Your task to perform on an android device: turn pop-ups off in chrome Image 0: 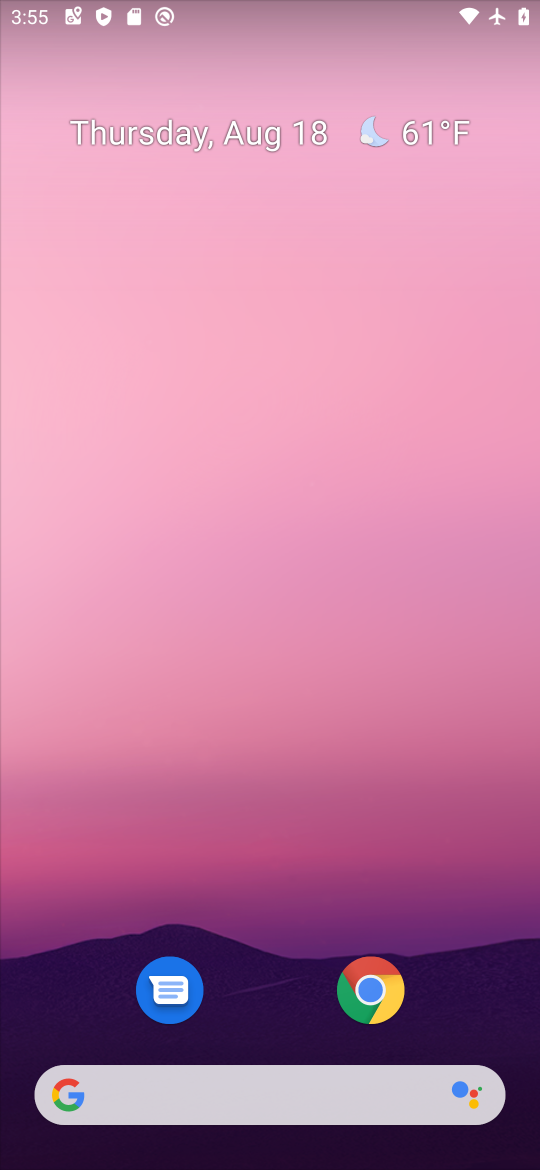
Step 0: drag from (248, 1004) to (268, 78)
Your task to perform on an android device: turn pop-ups off in chrome Image 1: 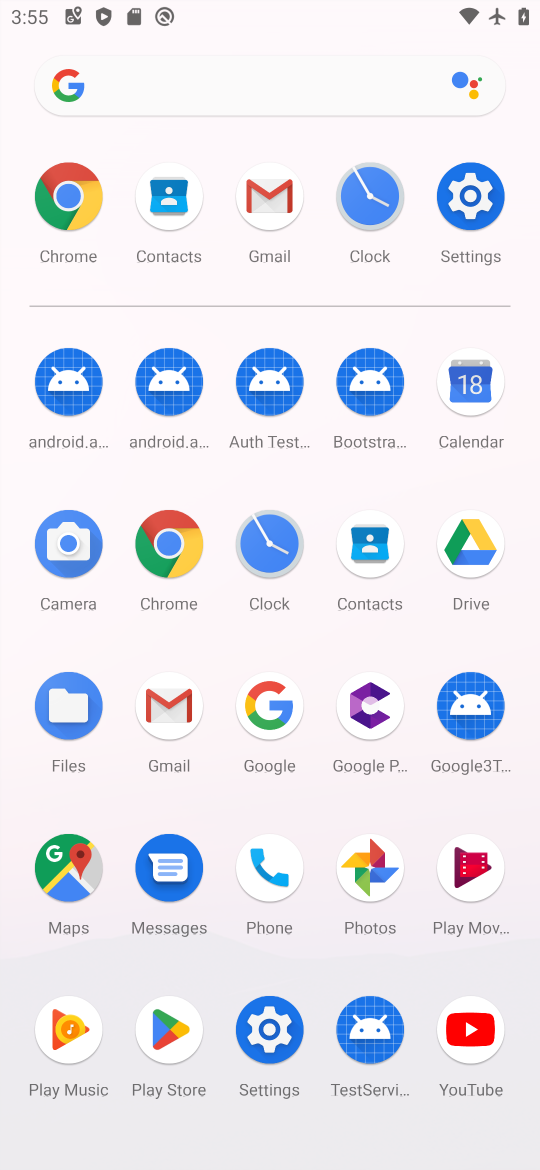
Step 1: click (163, 551)
Your task to perform on an android device: turn pop-ups off in chrome Image 2: 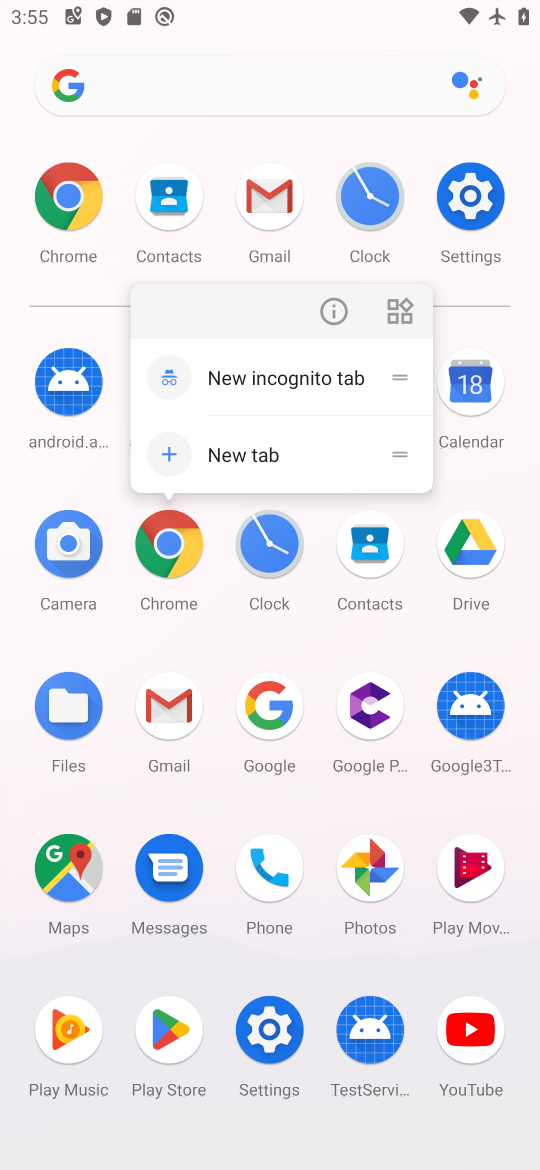
Step 2: click (163, 557)
Your task to perform on an android device: turn pop-ups off in chrome Image 3: 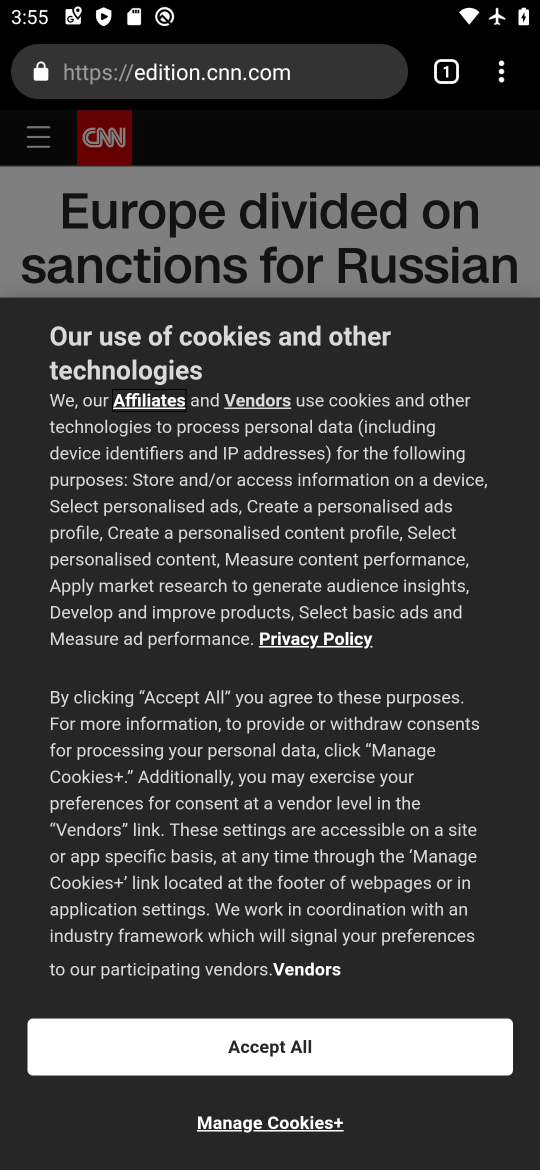
Step 3: drag from (510, 68) to (250, 784)
Your task to perform on an android device: turn pop-ups off in chrome Image 4: 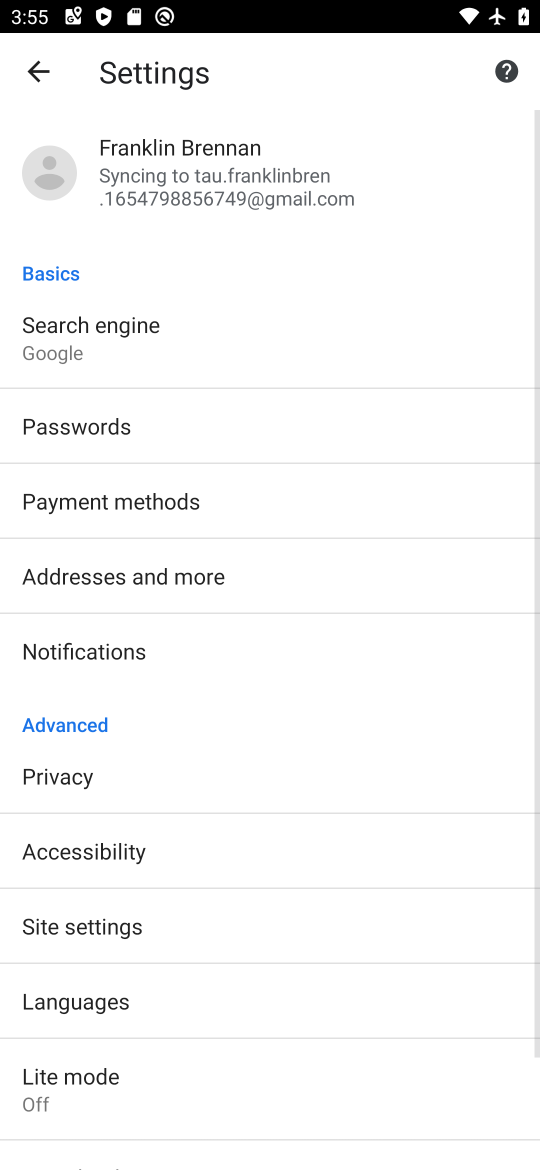
Step 4: drag from (300, 837) to (374, 225)
Your task to perform on an android device: turn pop-ups off in chrome Image 5: 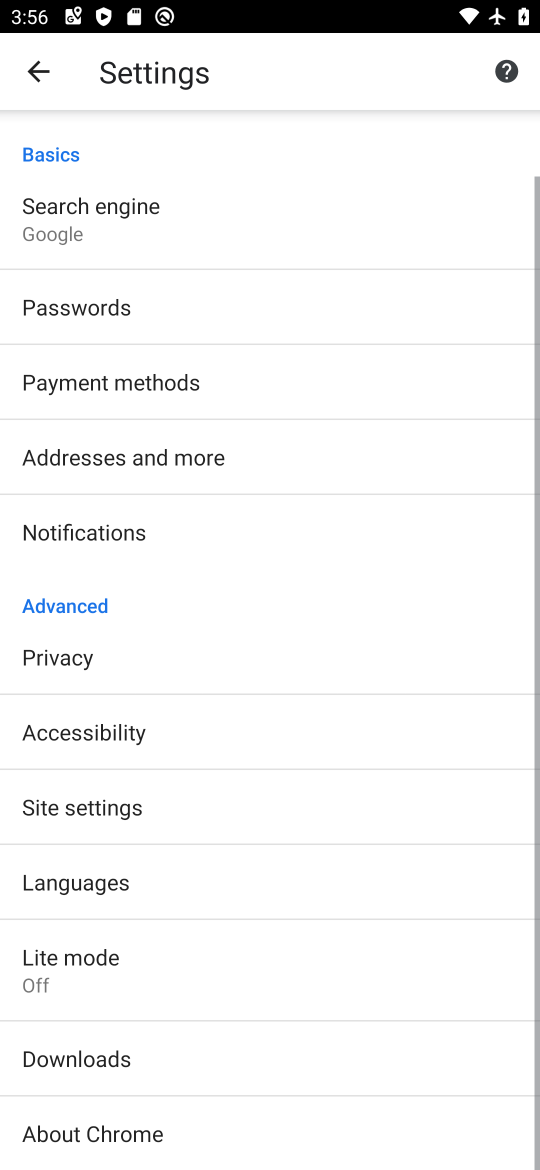
Step 5: click (110, 807)
Your task to perform on an android device: turn pop-ups off in chrome Image 6: 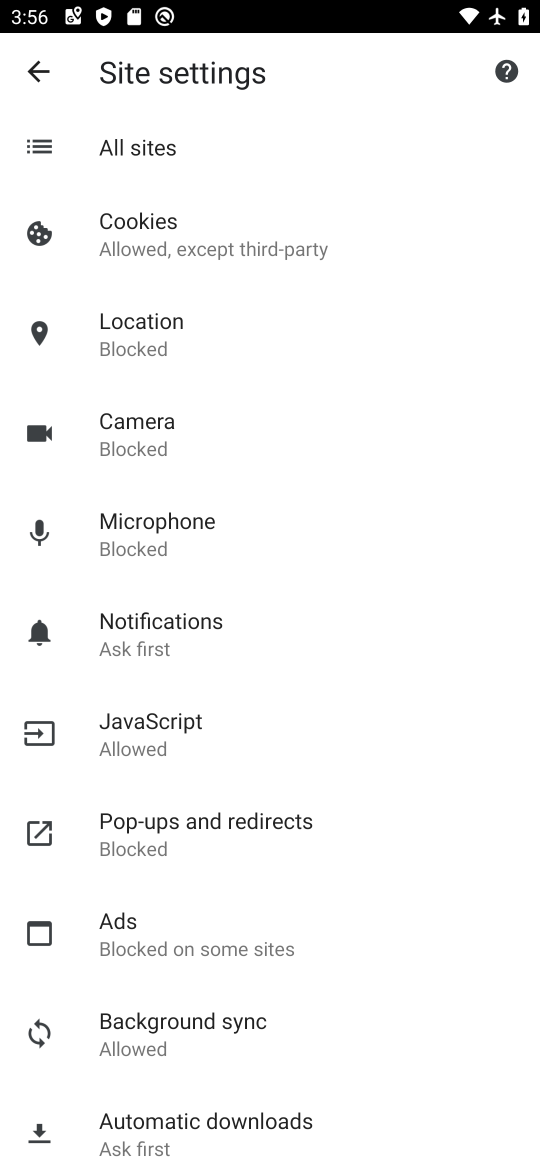
Step 6: click (206, 825)
Your task to perform on an android device: turn pop-ups off in chrome Image 7: 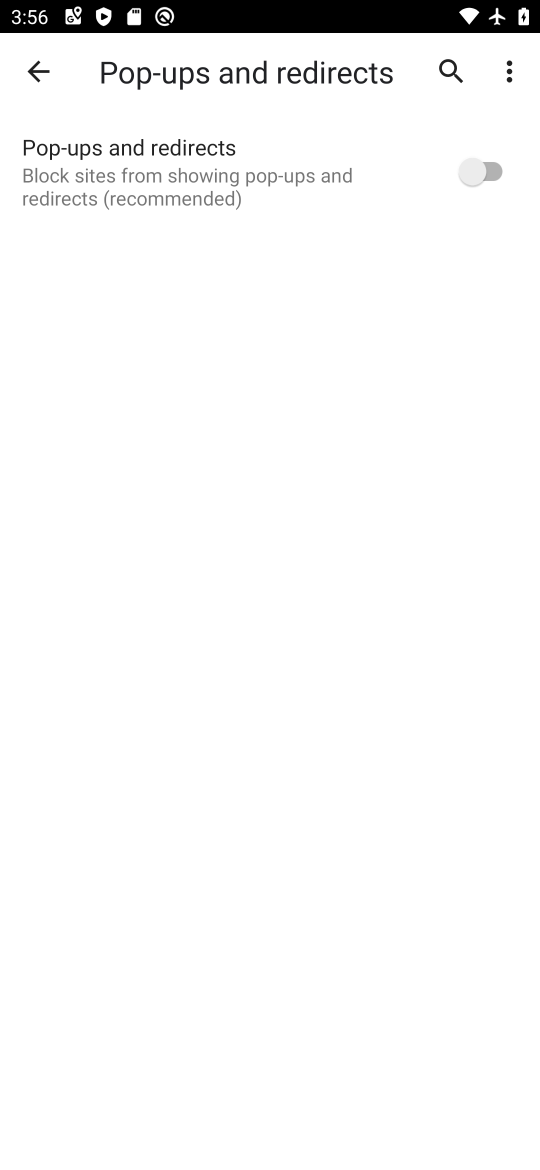
Step 7: task complete